Your task to perform on an android device: Toggle the flashlight Image 0: 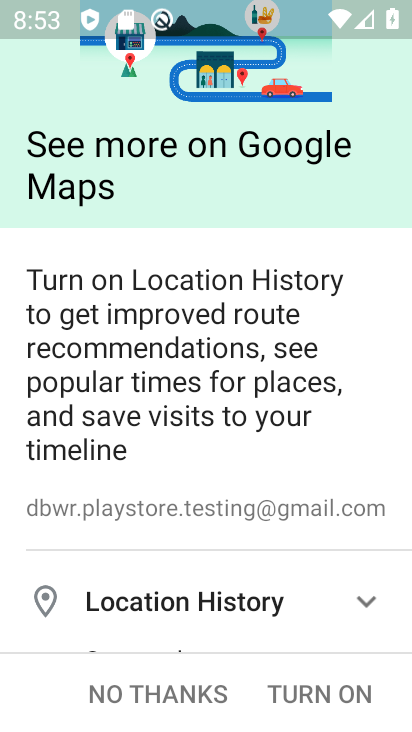
Step 0: click (218, 689)
Your task to perform on an android device: Toggle the flashlight Image 1: 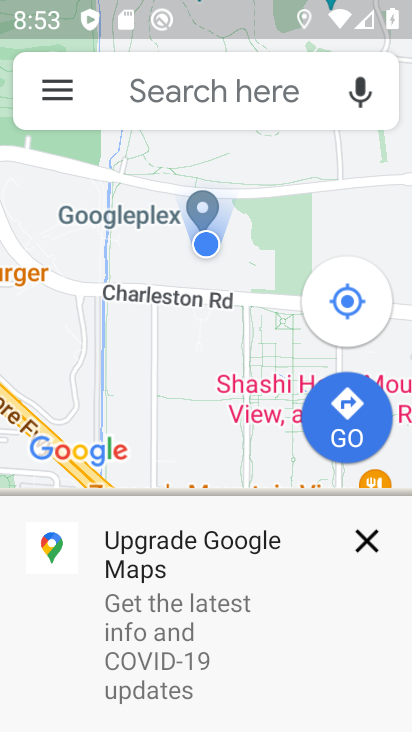
Step 1: press home button
Your task to perform on an android device: Toggle the flashlight Image 2: 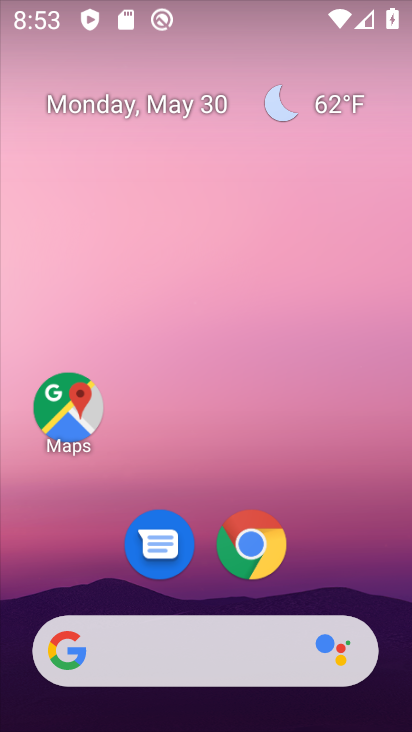
Step 2: drag from (322, 545) to (230, 167)
Your task to perform on an android device: Toggle the flashlight Image 3: 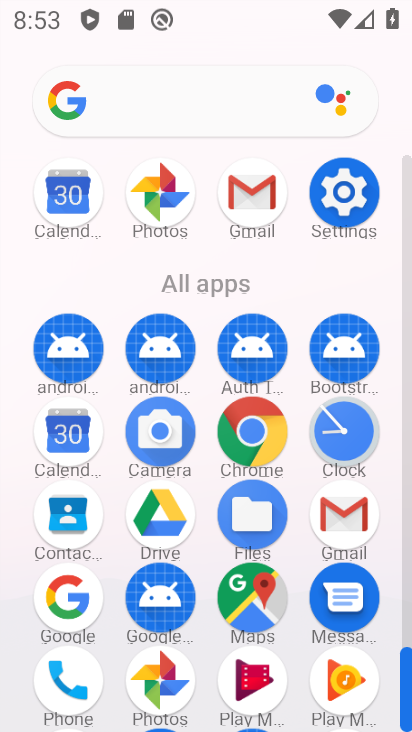
Step 3: click (346, 190)
Your task to perform on an android device: Toggle the flashlight Image 4: 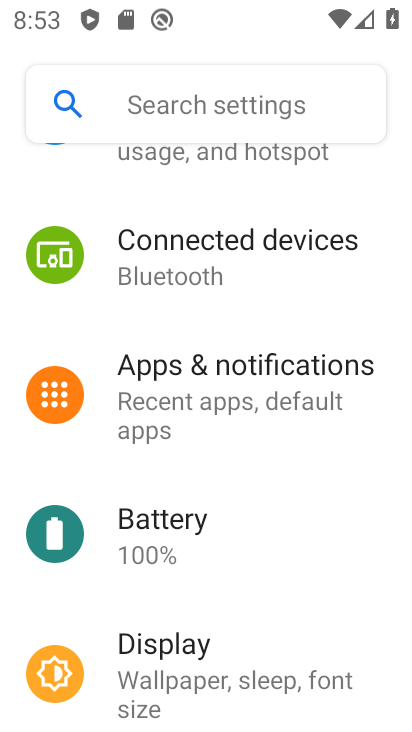
Step 4: drag from (193, 493) to (221, 411)
Your task to perform on an android device: Toggle the flashlight Image 5: 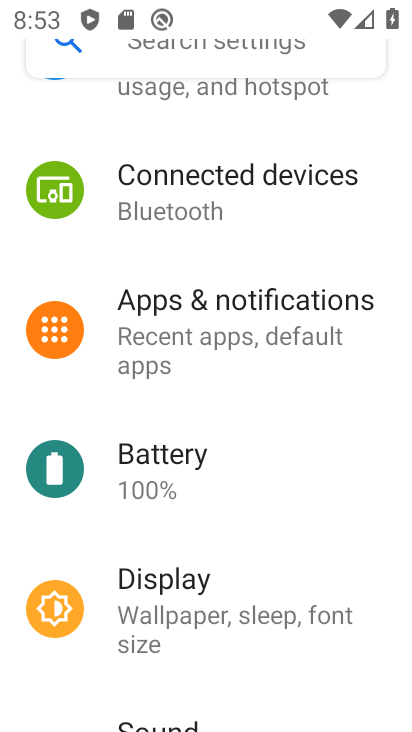
Step 5: drag from (250, 644) to (276, 563)
Your task to perform on an android device: Toggle the flashlight Image 6: 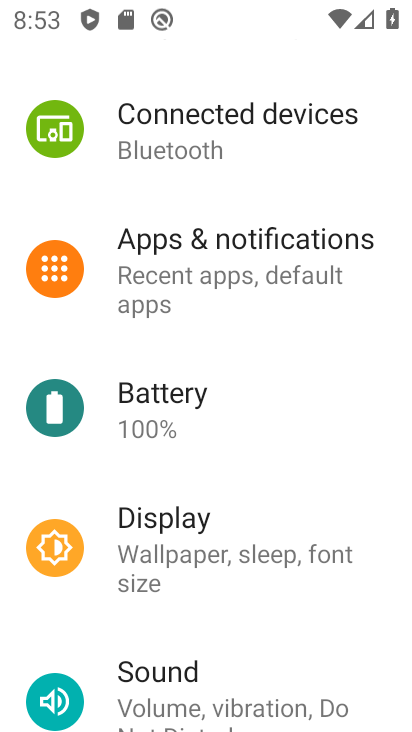
Step 6: click (261, 563)
Your task to perform on an android device: Toggle the flashlight Image 7: 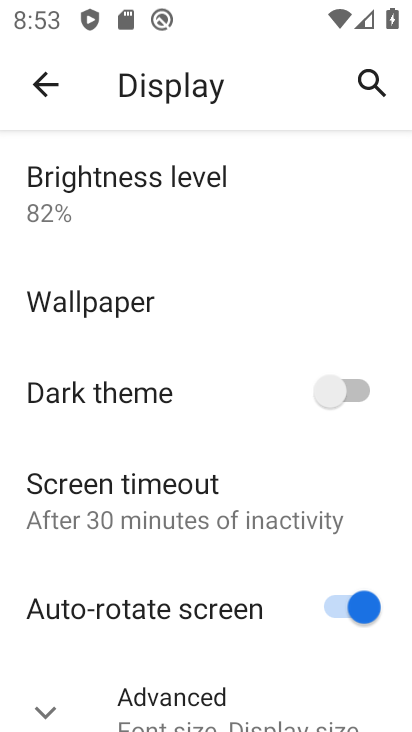
Step 7: drag from (150, 551) to (170, 448)
Your task to perform on an android device: Toggle the flashlight Image 8: 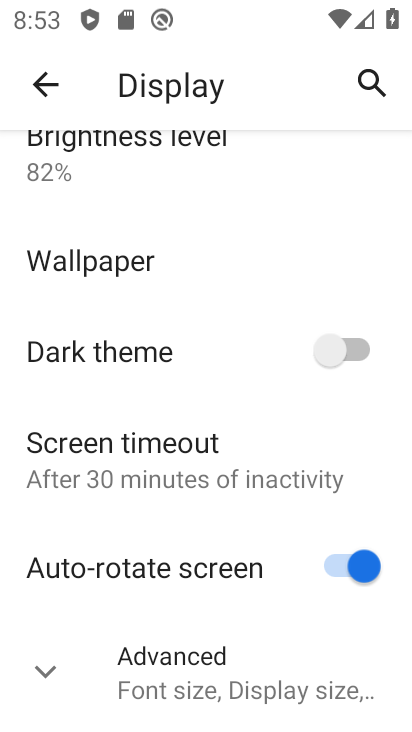
Step 8: drag from (157, 595) to (189, 383)
Your task to perform on an android device: Toggle the flashlight Image 9: 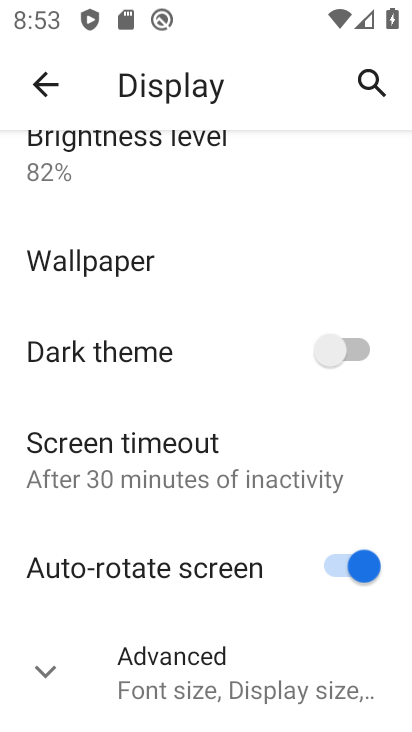
Step 9: click (175, 456)
Your task to perform on an android device: Toggle the flashlight Image 10: 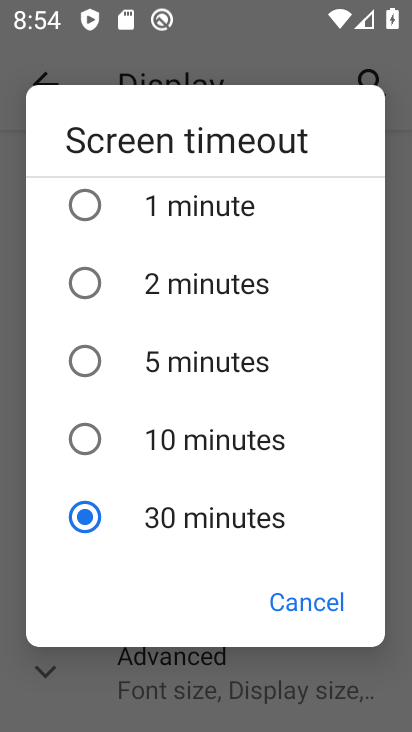
Step 10: click (310, 594)
Your task to perform on an android device: Toggle the flashlight Image 11: 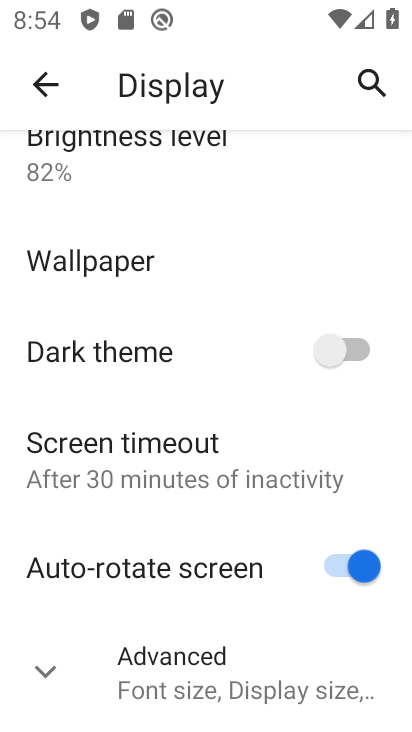
Step 11: click (49, 83)
Your task to perform on an android device: Toggle the flashlight Image 12: 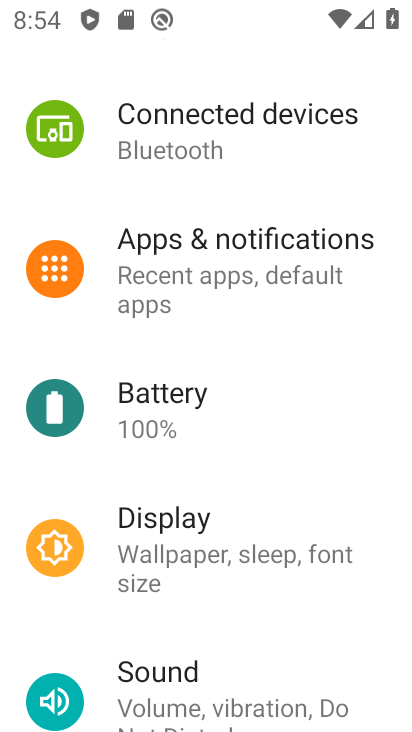
Step 12: drag from (244, 583) to (279, 421)
Your task to perform on an android device: Toggle the flashlight Image 13: 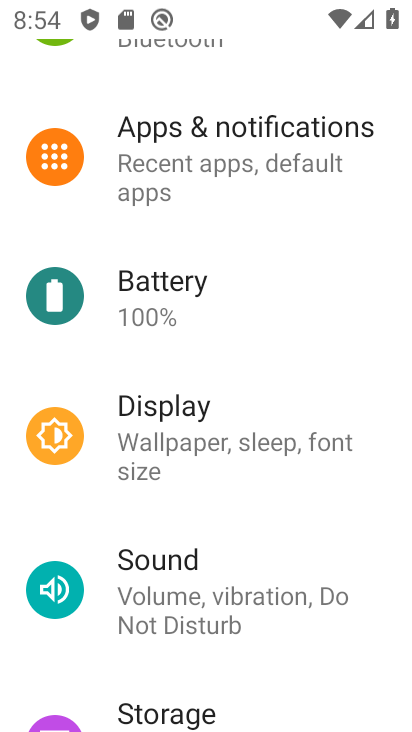
Step 13: drag from (259, 611) to (267, 506)
Your task to perform on an android device: Toggle the flashlight Image 14: 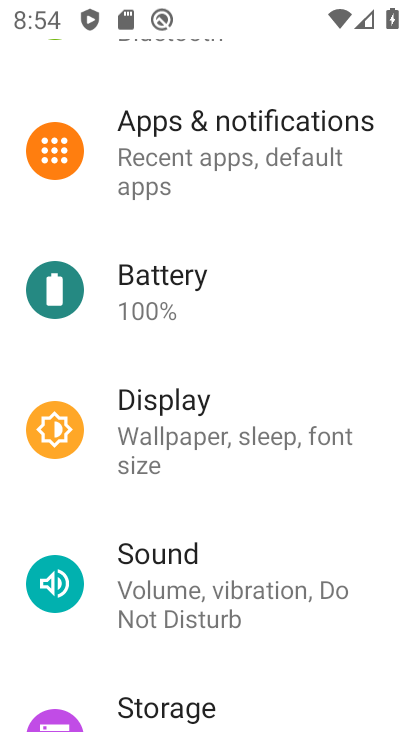
Step 14: drag from (240, 627) to (248, 507)
Your task to perform on an android device: Toggle the flashlight Image 15: 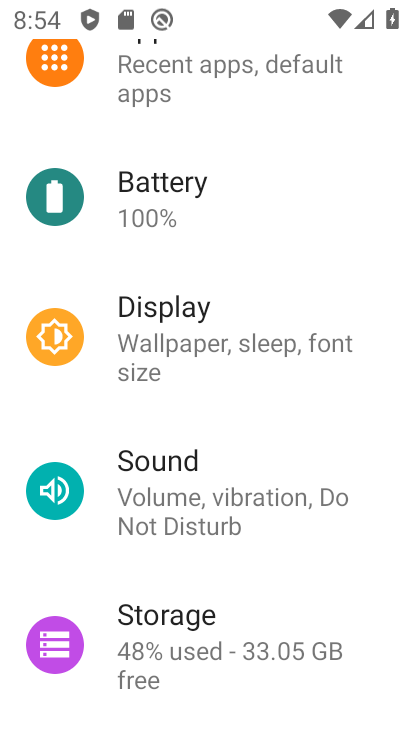
Step 15: drag from (228, 586) to (234, 395)
Your task to perform on an android device: Toggle the flashlight Image 16: 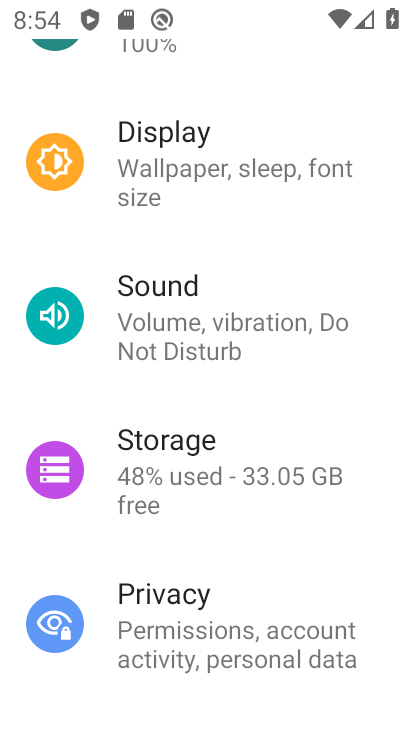
Step 16: drag from (238, 570) to (263, 463)
Your task to perform on an android device: Toggle the flashlight Image 17: 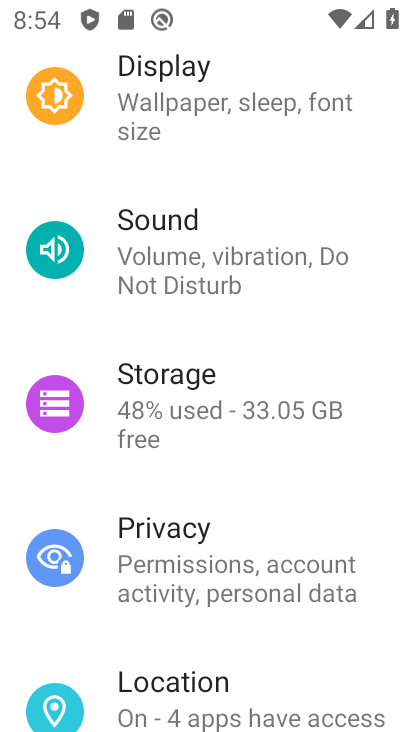
Step 17: drag from (264, 541) to (287, 418)
Your task to perform on an android device: Toggle the flashlight Image 18: 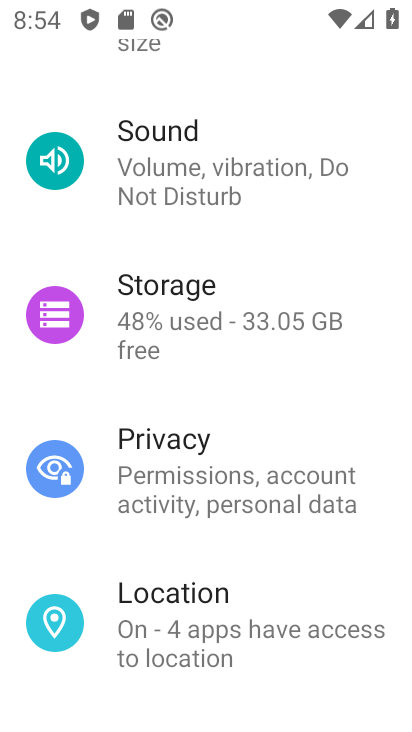
Step 18: drag from (253, 574) to (256, 457)
Your task to perform on an android device: Toggle the flashlight Image 19: 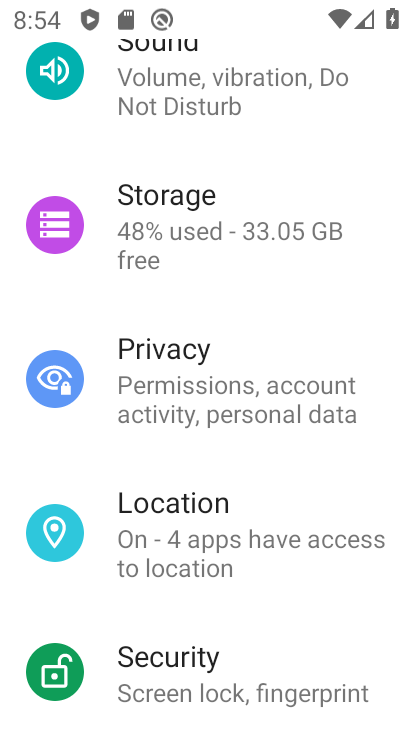
Step 19: drag from (244, 598) to (252, 522)
Your task to perform on an android device: Toggle the flashlight Image 20: 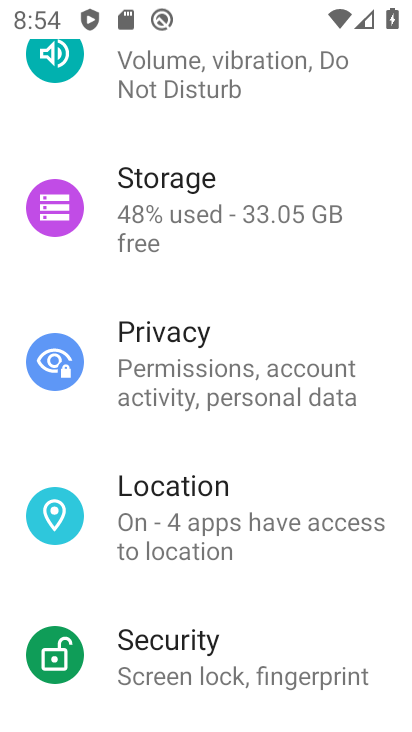
Step 20: drag from (265, 589) to (265, 490)
Your task to perform on an android device: Toggle the flashlight Image 21: 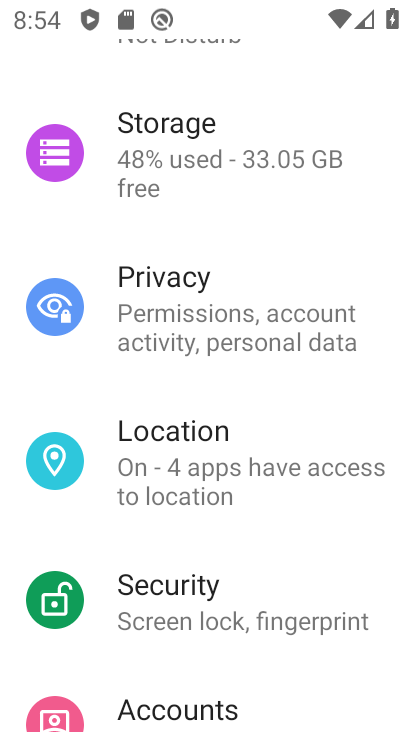
Step 21: drag from (238, 577) to (247, 466)
Your task to perform on an android device: Toggle the flashlight Image 22: 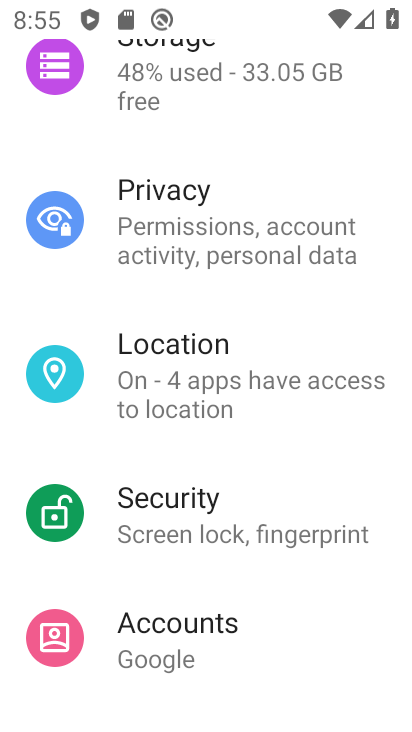
Step 22: drag from (197, 562) to (279, 444)
Your task to perform on an android device: Toggle the flashlight Image 23: 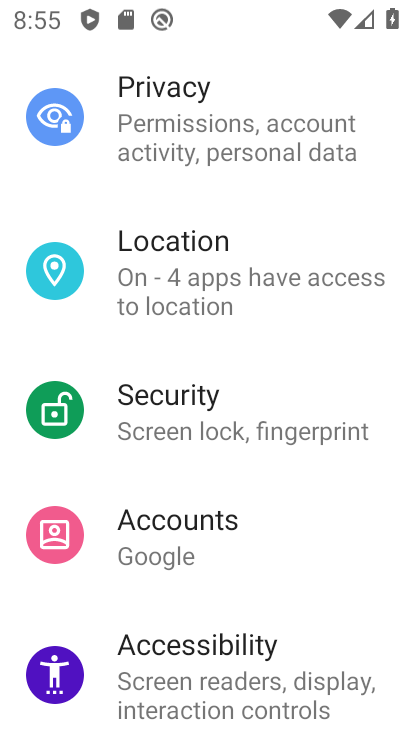
Step 23: drag from (245, 618) to (293, 535)
Your task to perform on an android device: Toggle the flashlight Image 24: 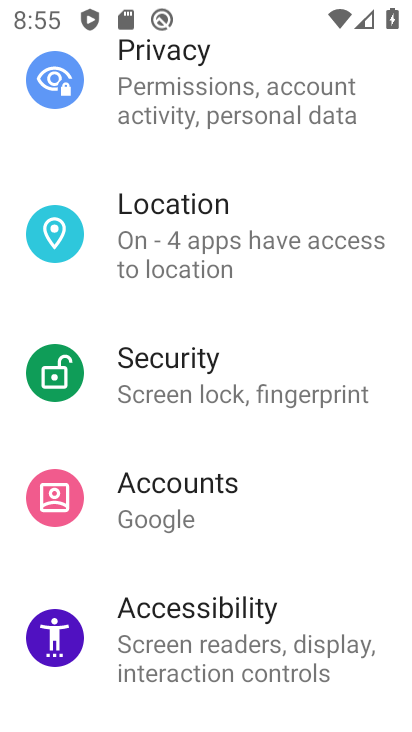
Step 24: drag from (252, 589) to (293, 466)
Your task to perform on an android device: Toggle the flashlight Image 25: 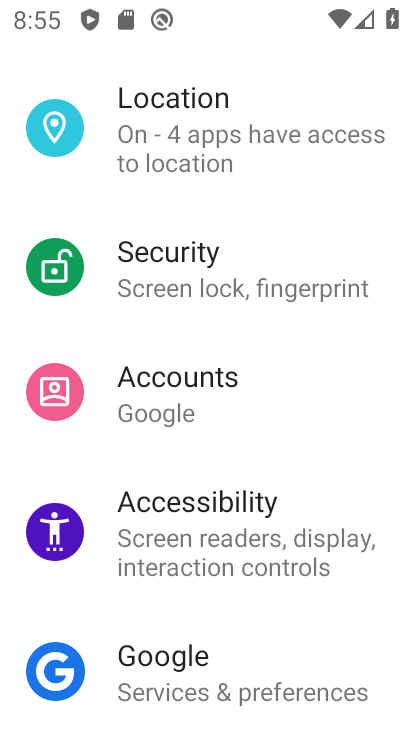
Step 25: drag from (247, 619) to (301, 472)
Your task to perform on an android device: Toggle the flashlight Image 26: 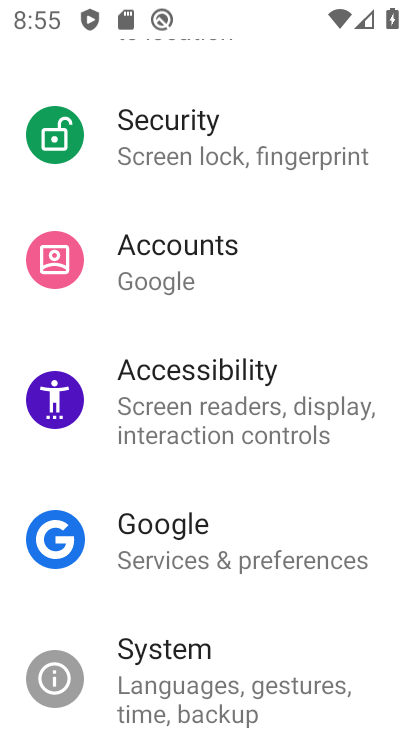
Step 26: drag from (188, 615) to (256, 352)
Your task to perform on an android device: Toggle the flashlight Image 27: 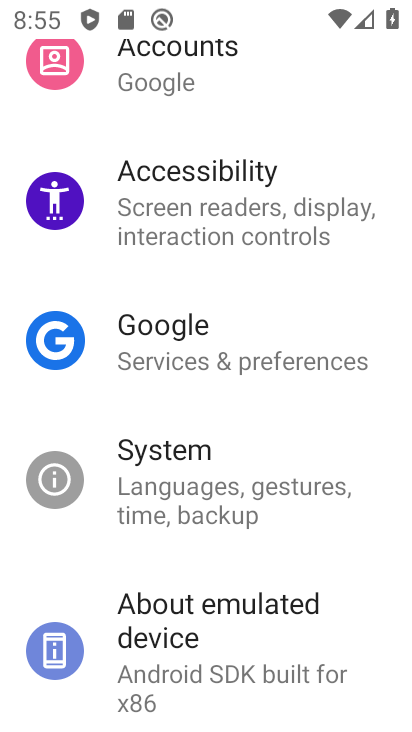
Step 27: click (191, 234)
Your task to perform on an android device: Toggle the flashlight Image 28: 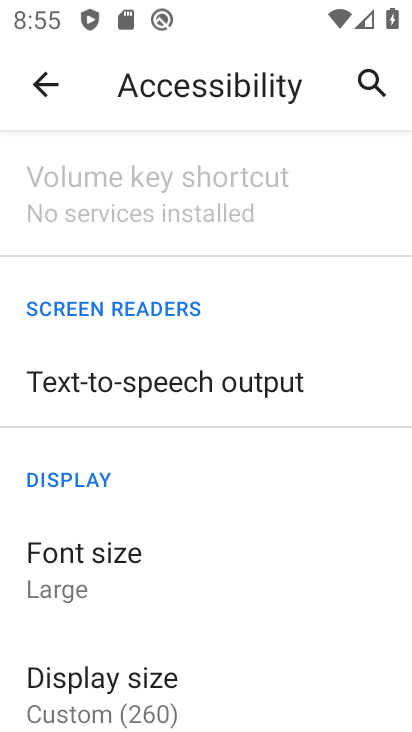
Step 28: task complete